Your task to perform on an android device: Go to calendar. Show me events next week Image 0: 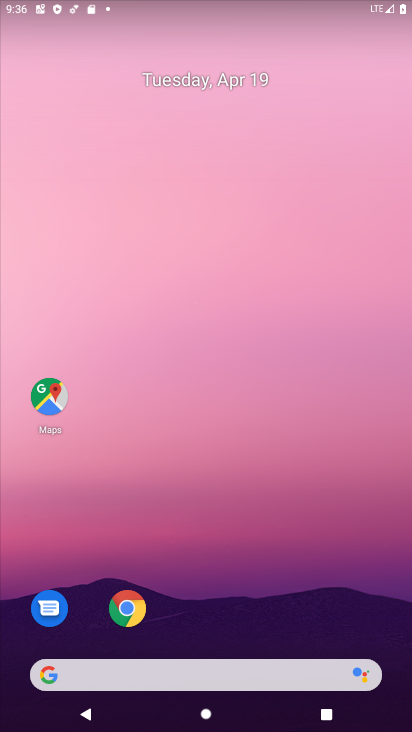
Step 0: drag from (366, 629) to (282, 88)
Your task to perform on an android device: Go to calendar. Show me events next week Image 1: 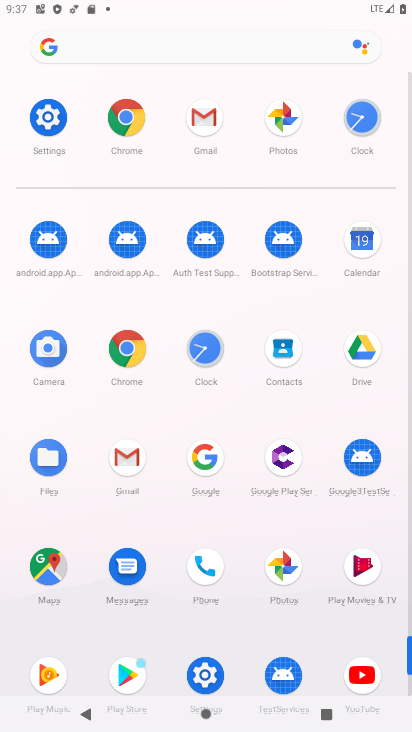
Step 1: click (361, 240)
Your task to perform on an android device: Go to calendar. Show me events next week Image 2: 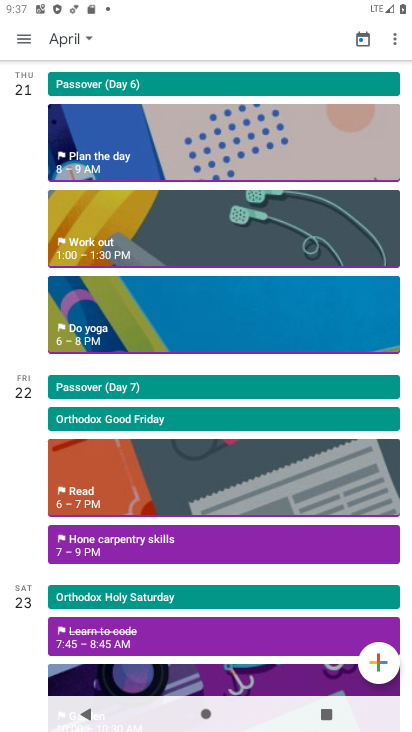
Step 2: click (20, 35)
Your task to perform on an android device: Go to calendar. Show me events next week Image 3: 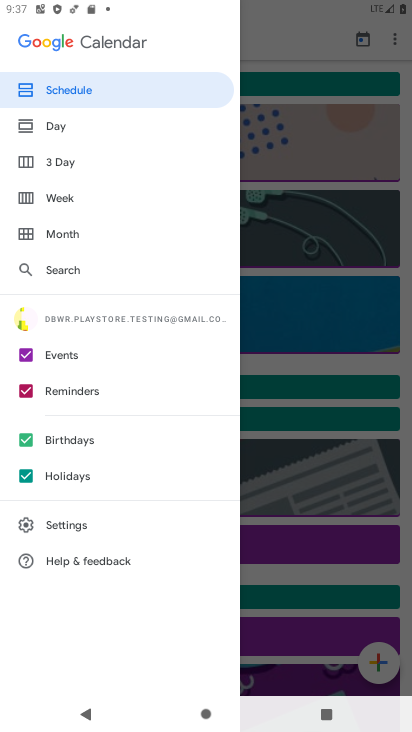
Step 3: click (57, 197)
Your task to perform on an android device: Go to calendar. Show me events next week Image 4: 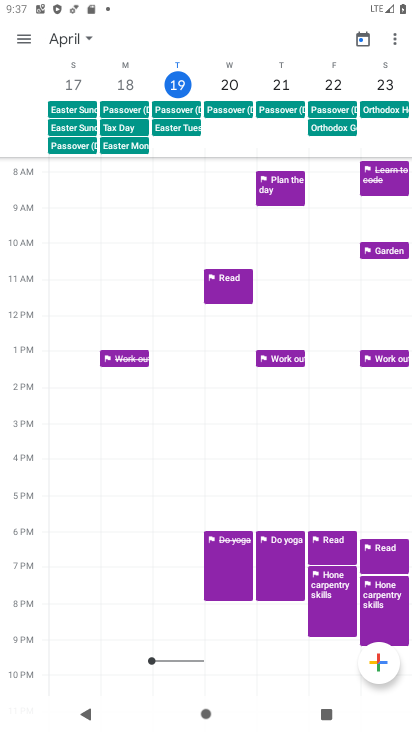
Step 4: task complete